Your task to perform on an android device: manage bookmarks in the chrome app Image 0: 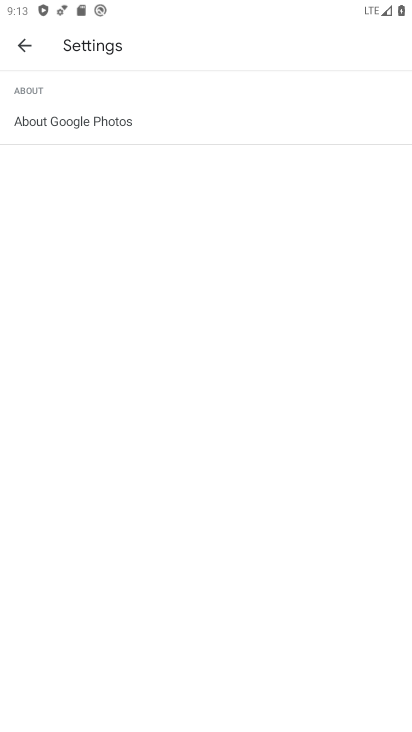
Step 0: press home button
Your task to perform on an android device: manage bookmarks in the chrome app Image 1: 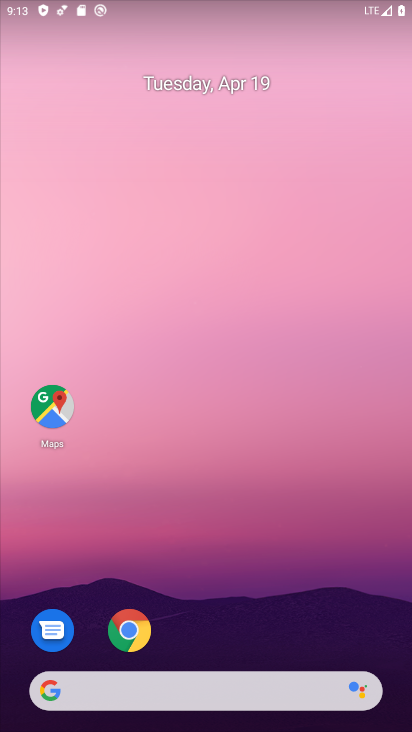
Step 1: click (135, 644)
Your task to perform on an android device: manage bookmarks in the chrome app Image 2: 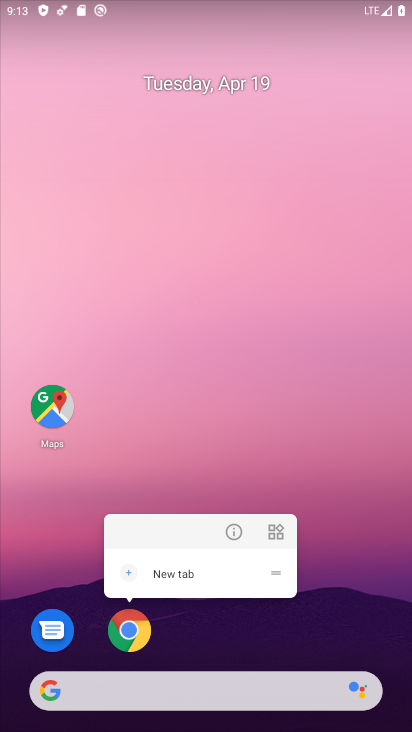
Step 2: click (122, 635)
Your task to perform on an android device: manage bookmarks in the chrome app Image 3: 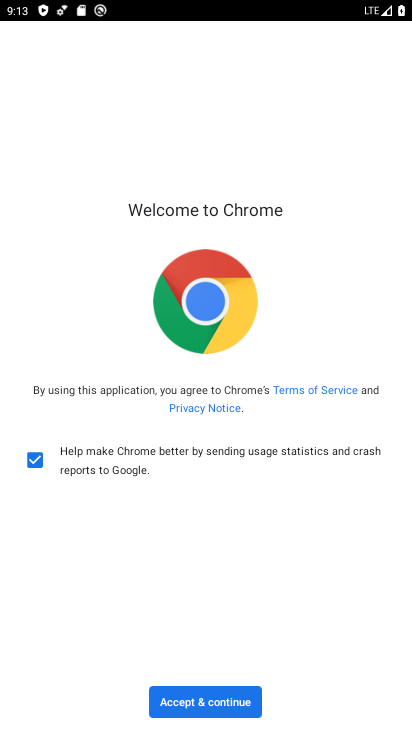
Step 3: click (197, 698)
Your task to perform on an android device: manage bookmarks in the chrome app Image 4: 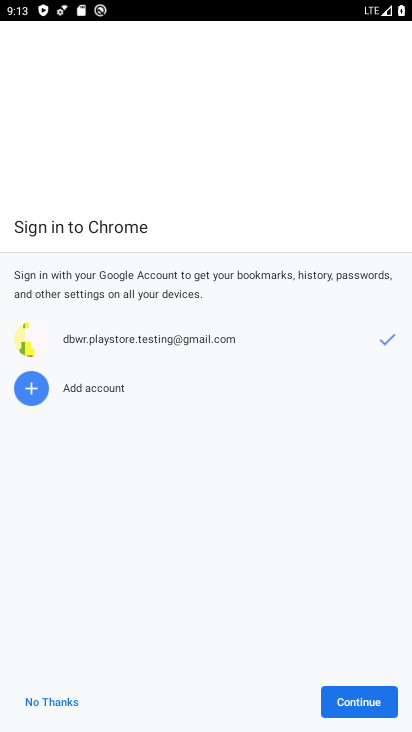
Step 4: click (343, 710)
Your task to perform on an android device: manage bookmarks in the chrome app Image 5: 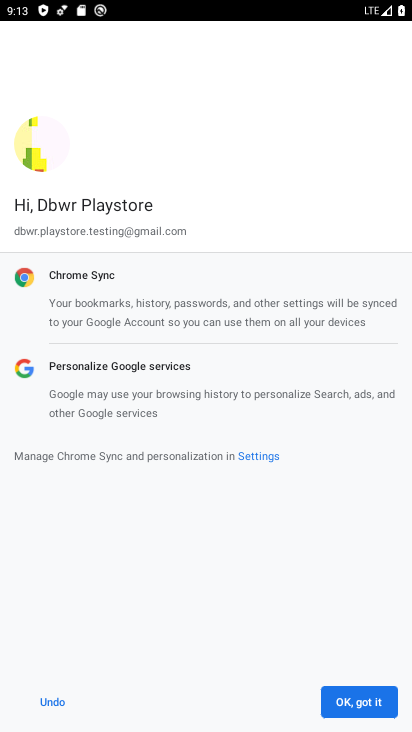
Step 5: click (343, 710)
Your task to perform on an android device: manage bookmarks in the chrome app Image 6: 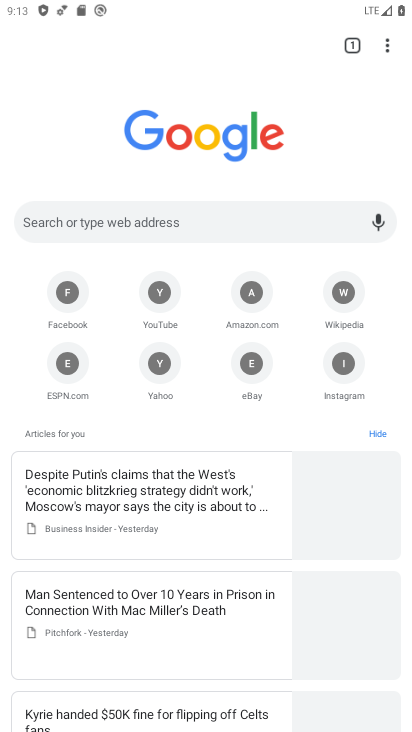
Step 6: click (386, 51)
Your task to perform on an android device: manage bookmarks in the chrome app Image 7: 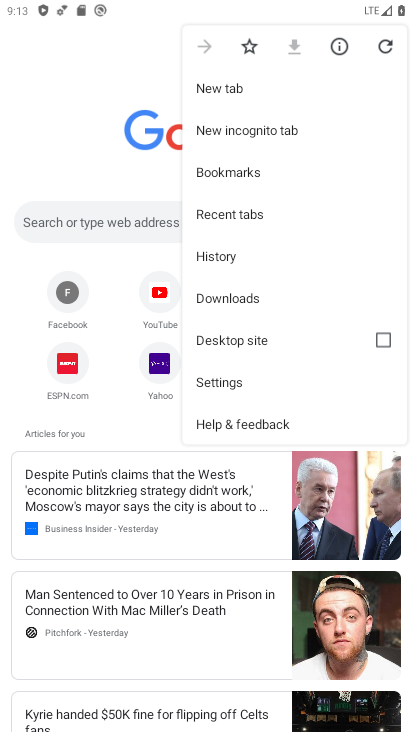
Step 7: click (229, 169)
Your task to perform on an android device: manage bookmarks in the chrome app Image 8: 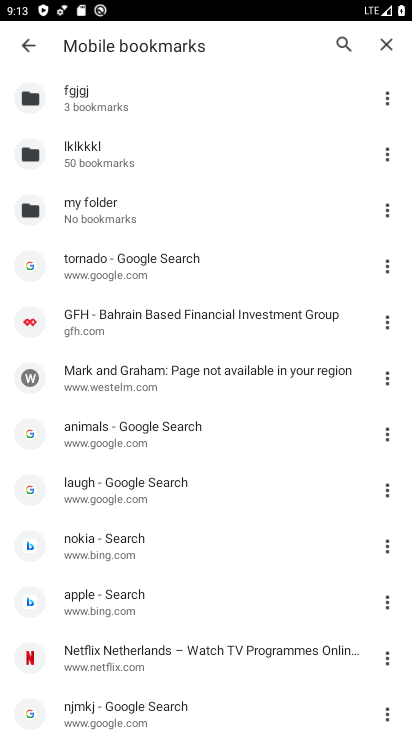
Step 8: task complete